Your task to perform on an android device: Clear all items from cart on bestbuy. Search for "razer naga" on bestbuy, select the first entry, add it to the cart, then select checkout. Image 0: 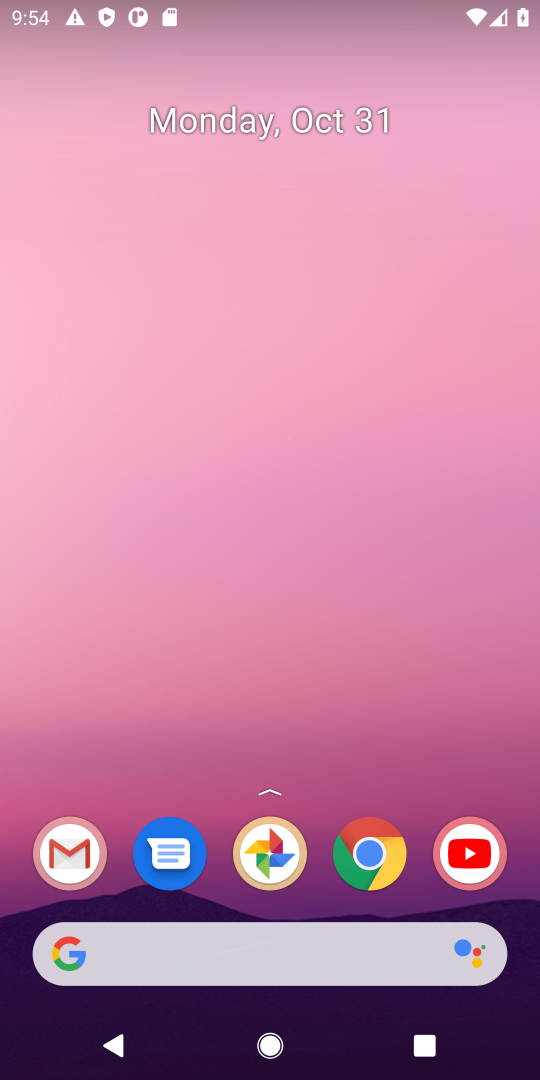
Step 0: click (197, 939)
Your task to perform on an android device: Clear all items from cart on bestbuy. Search for "razer naga" on bestbuy, select the first entry, add it to the cart, then select checkout. Image 1: 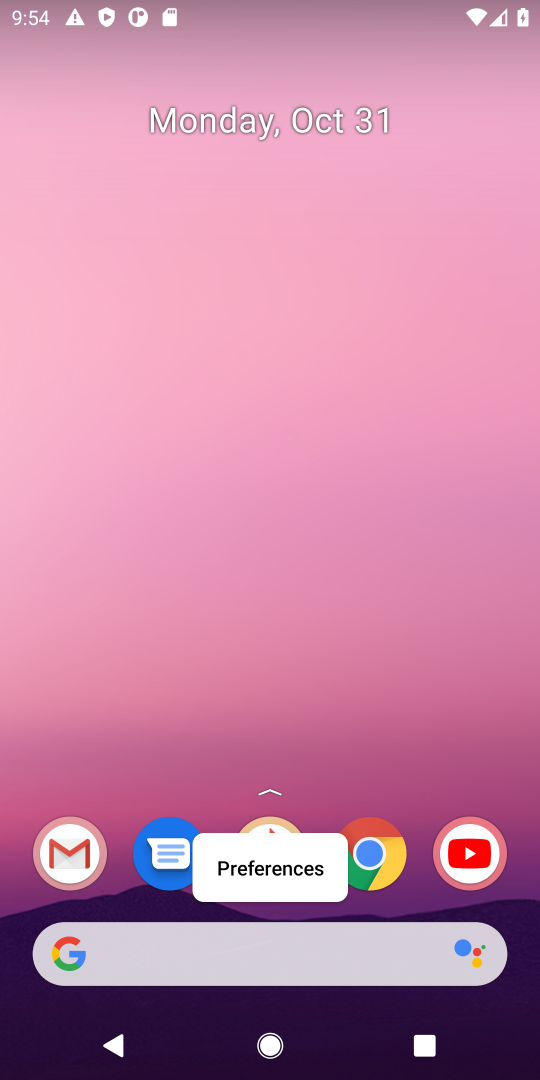
Step 1: click (190, 944)
Your task to perform on an android device: Clear all items from cart on bestbuy. Search for "razer naga" on bestbuy, select the first entry, add it to the cart, then select checkout. Image 2: 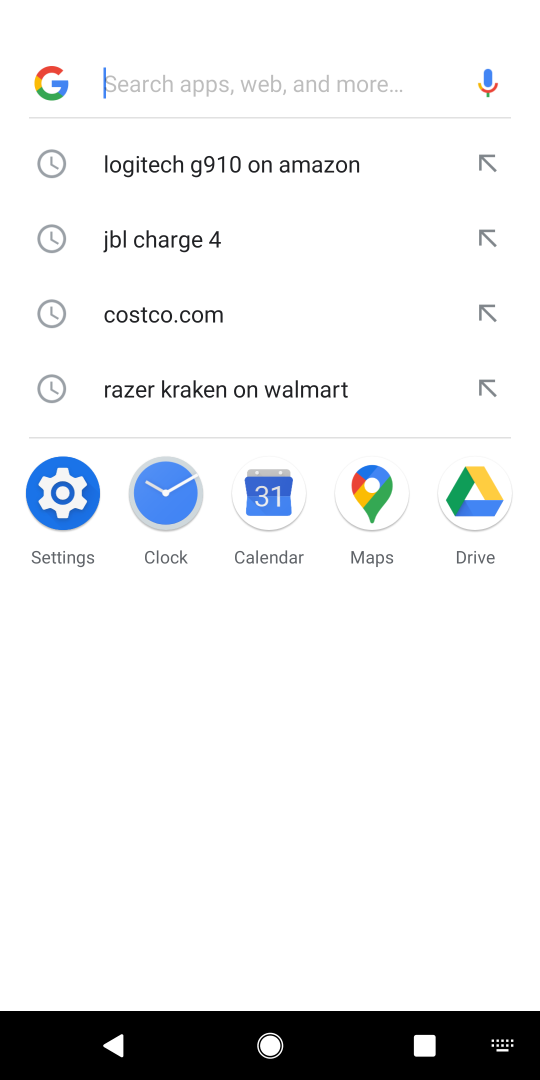
Step 2: type "bestbuy"
Your task to perform on an android device: Clear all items from cart on bestbuy. Search for "razer naga" on bestbuy, select the first entry, add it to the cart, then select checkout. Image 3: 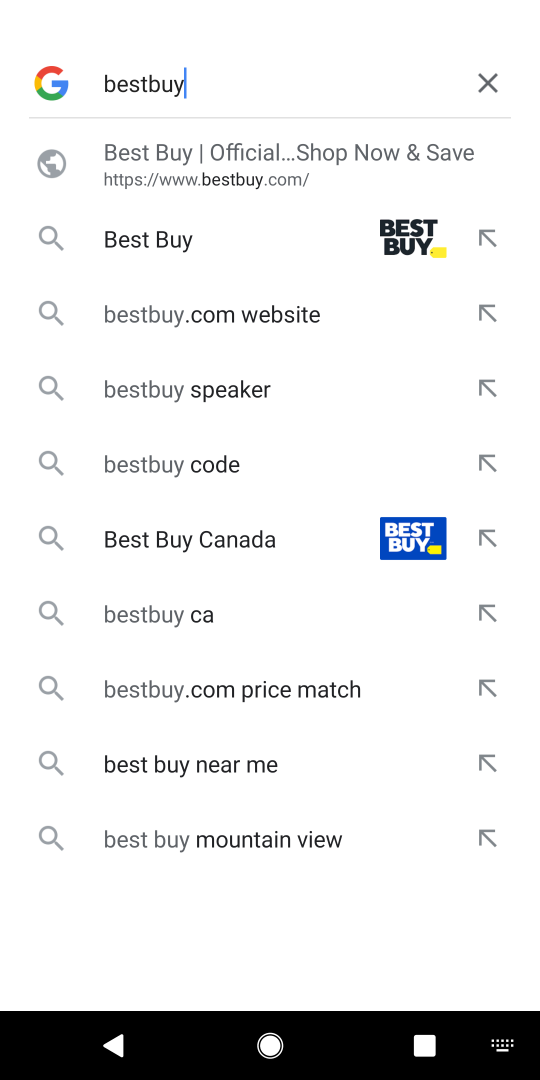
Step 3: type ""
Your task to perform on an android device: Clear all items from cart on bestbuy. Search for "razer naga" on bestbuy, select the first entry, add it to the cart, then select checkout. Image 4: 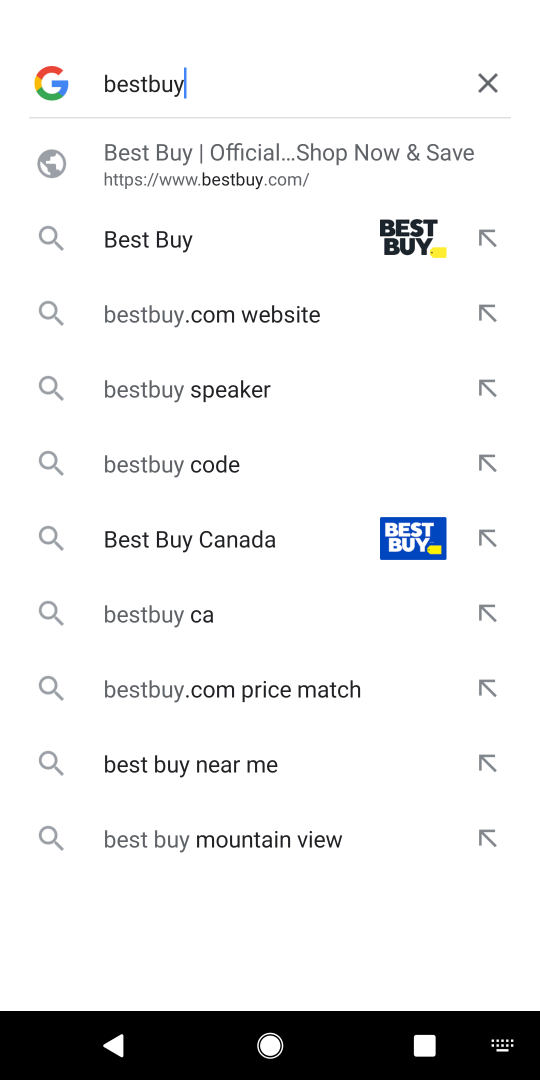
Step 4: press enter
Your task to perform on an android device: Clear all items from cart on bestbuy. Search for "razer naga" on bestbuy, select the first entry, add it to the cart, then select checkout. Image 5: 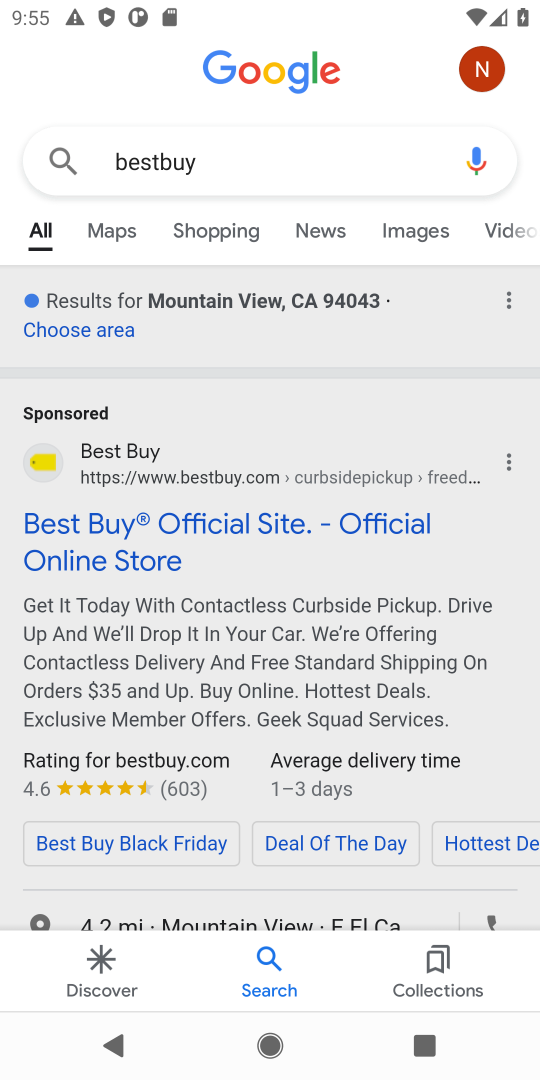
Step 5: click (210, 509)
Your task to perform on an android device: Clear all items from cart on bestbuy. Search for "razer naga" on bestbuy, select the first entry, add it to the cart, then select checkout. Image 6: 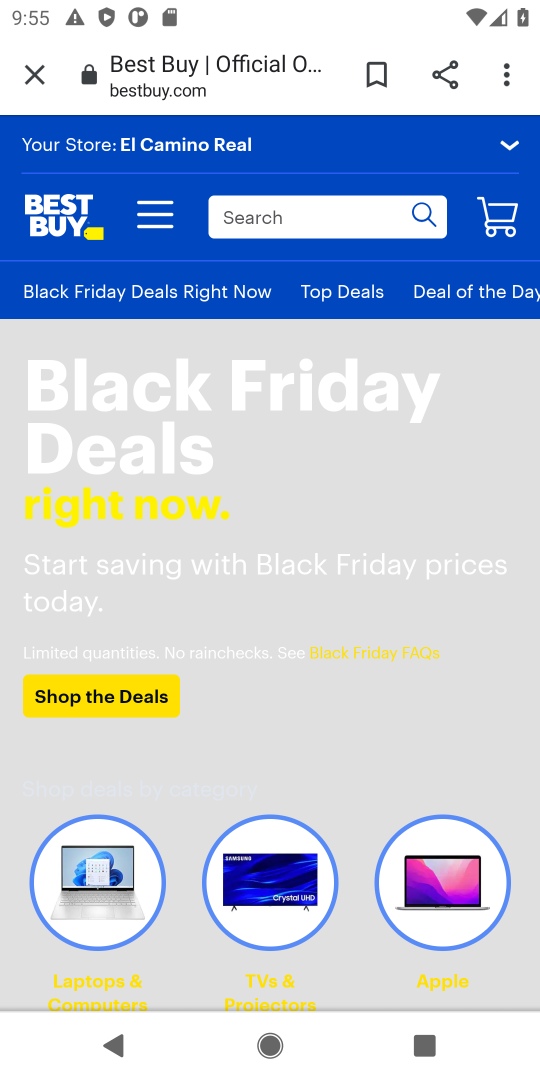
Step 6: click (290, 228)
Your task to perform on an android device: Clear all items from cart on bestbuy. Search for "razer naga" on bestbuy, select the first entry, add it to the cart, then select checkout. Image 7: 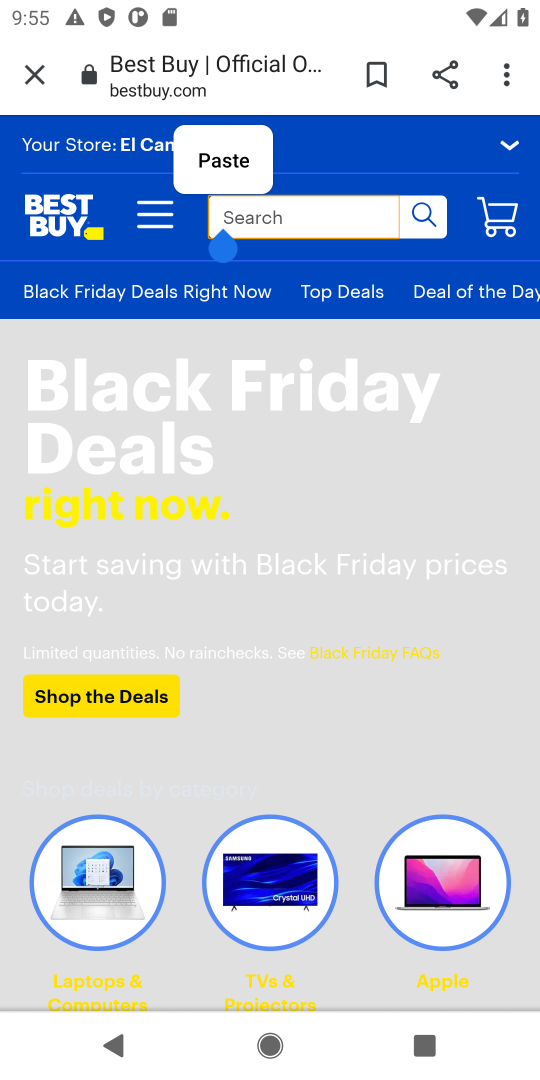
Step 7: type "razer naga"
Your task to perform on an android device: Clear all items from cart on bestbuy. Search for "razer naga" on bestbuy, select the first entry, add it to the cart, then select checkout. Image 8: 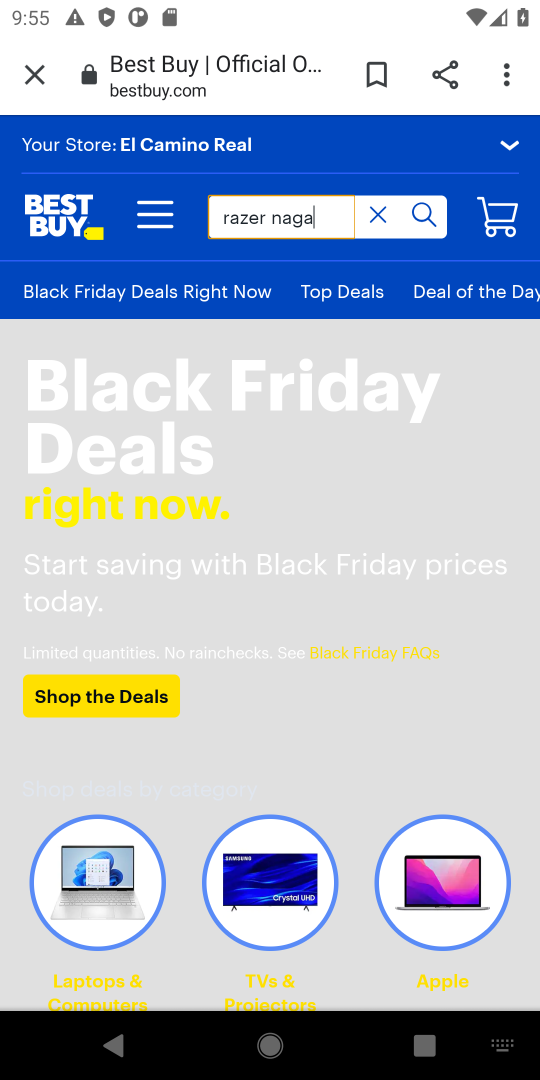
Step 8: type ""
Your task to perform on an android device: Clear all items from cart on bestbuy. Search for "razer naga" on bestbuy, select the first entry, add it to the cart, then select checkout. Image 9: 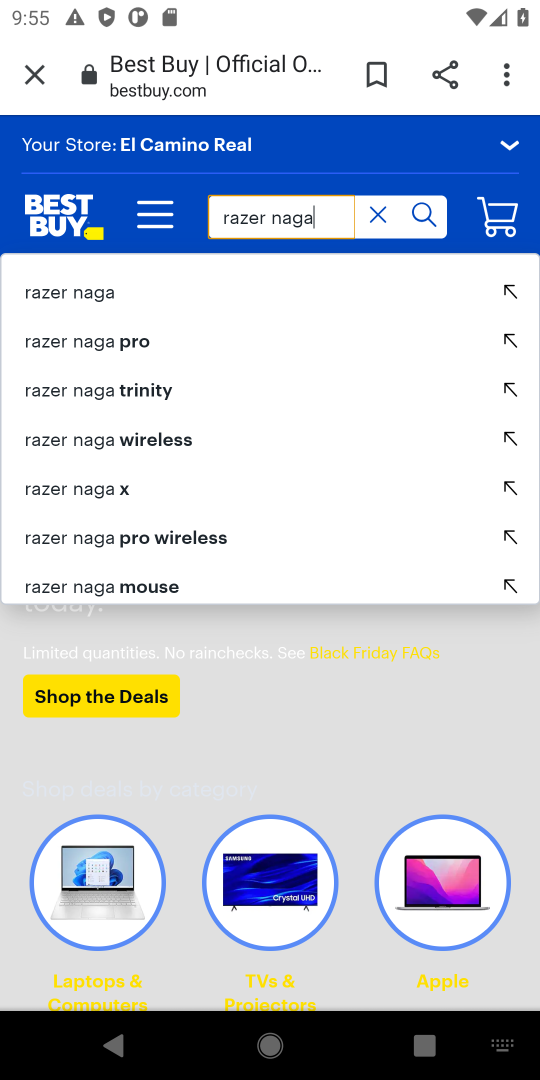
Step 9: press enter
Your task to perform on an android device: Clear all items from cart on bestbuy. Search for "razer naga" on bestbuy, select the first entry, add it to the cart, then select checkout. Image 10: 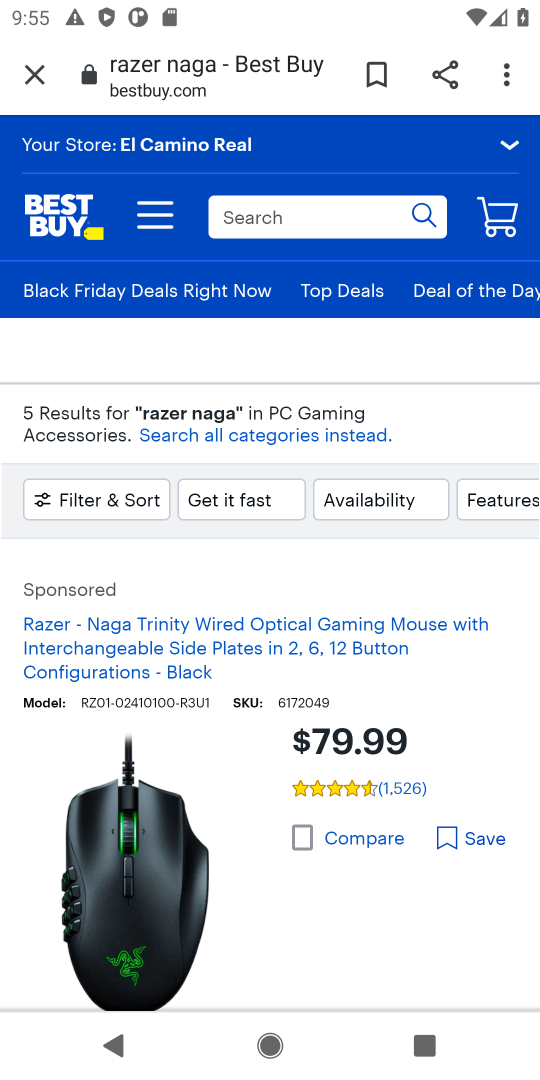
Step 10: click (367, 762)
Your task to perform on an android device: Clear all items from cart on bestbuy. Search for "razer naga" on bestbuy, select the first entry, add it to the cart, then select checkout. Image 11: 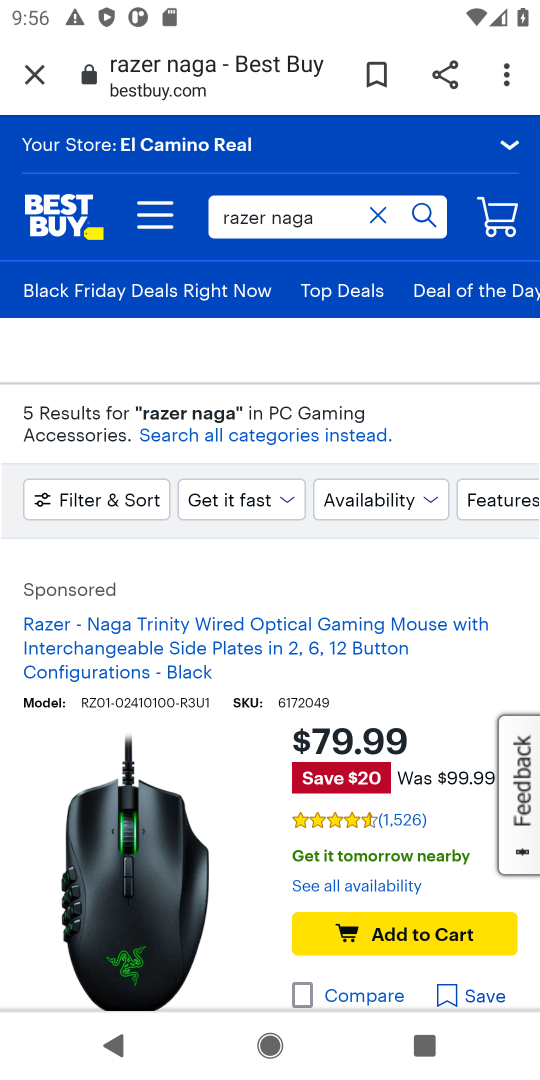
Step 11: click (428, 929)
Your task to perform on an android device: Clear all items from cart on bestbuy. Search for "razer naga" on bestbuy, select the first entry, add it to the cart, then select checkout. Image 12: 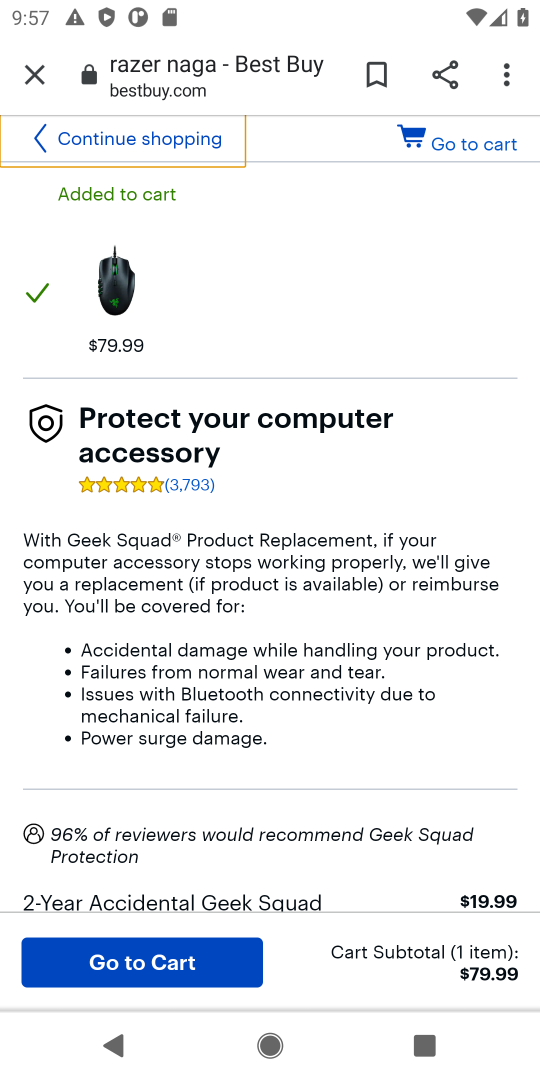
Step 12: click (233, 1000)
Your task to perform on an android device: Clear all items from cart on bestbuy. Search for "razer naga" on bestbuy, select the first entry, add it to the cart, then select checkout. Image 13: 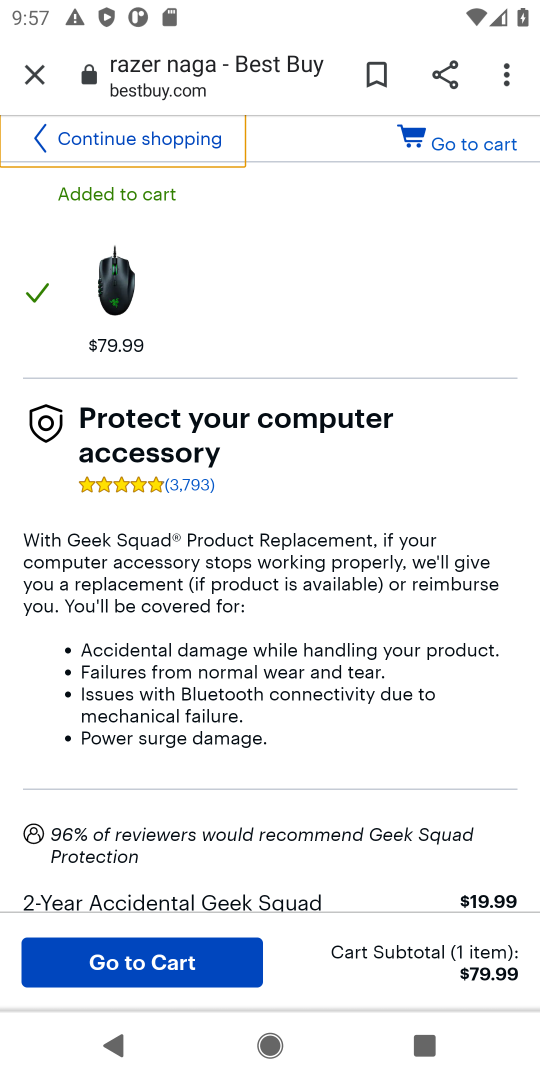
Step 13: click (220, 964)
Your task to perform on an android device: Clear all items from cart on bestbuy. Search for "razer naga" on bestbuy, select the first entry, add it to the cart, then select checkout. Image 14: 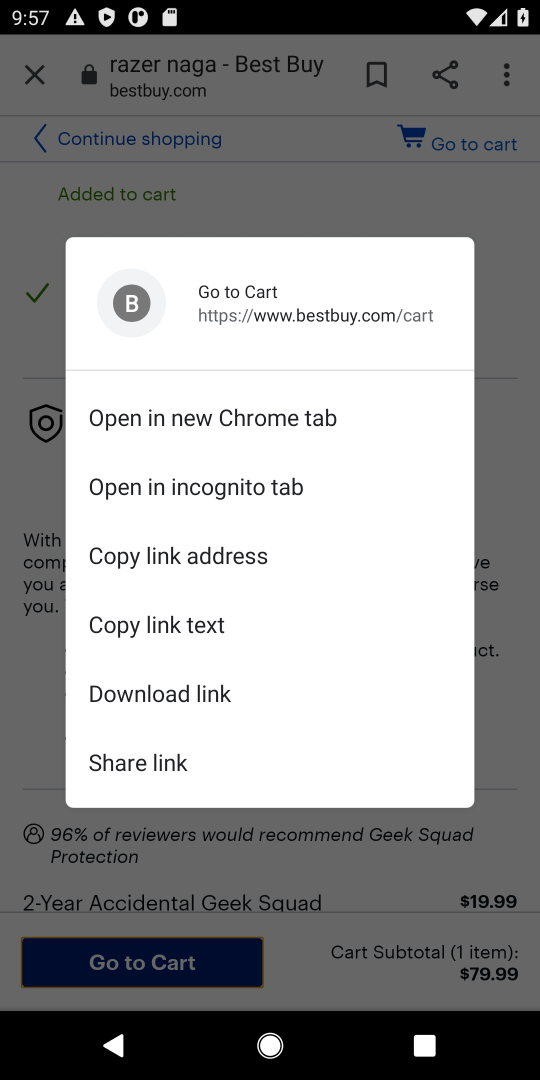
Step 14: click (216, 955)
Your task to perform on an android device: Clear all items from cart on bestbuy. Search for "razer naga" on bestbuy, select the first entry, add it to the cart, then select checkout. Image 15: 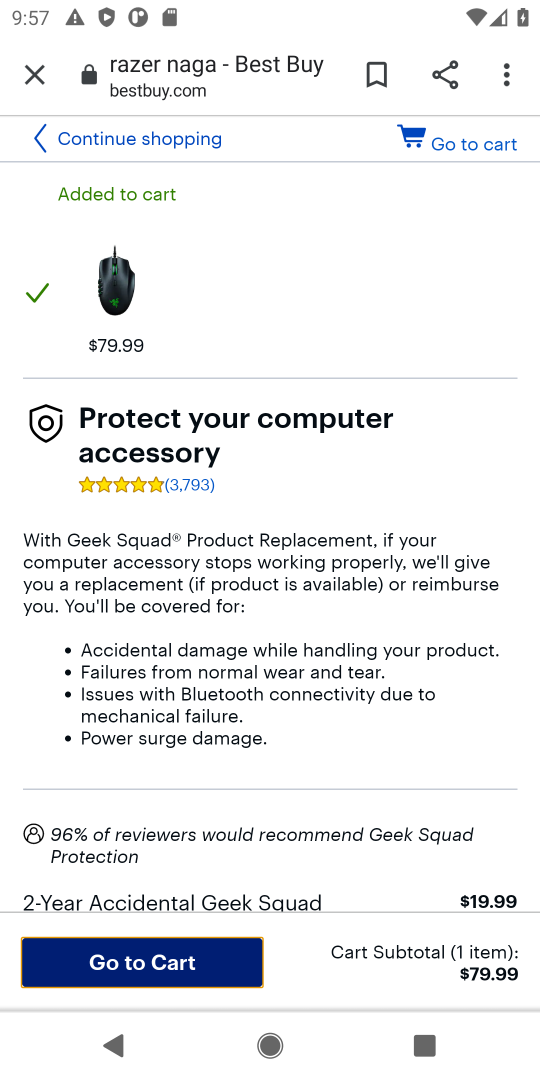
Step 15: click (175, 970)
Your task to perform on an android device: Clear all items from cart on bestbuy. Search for "razer naga" on bestbuy, select the first entry, add it to the cart, then select checkout. Image 16: 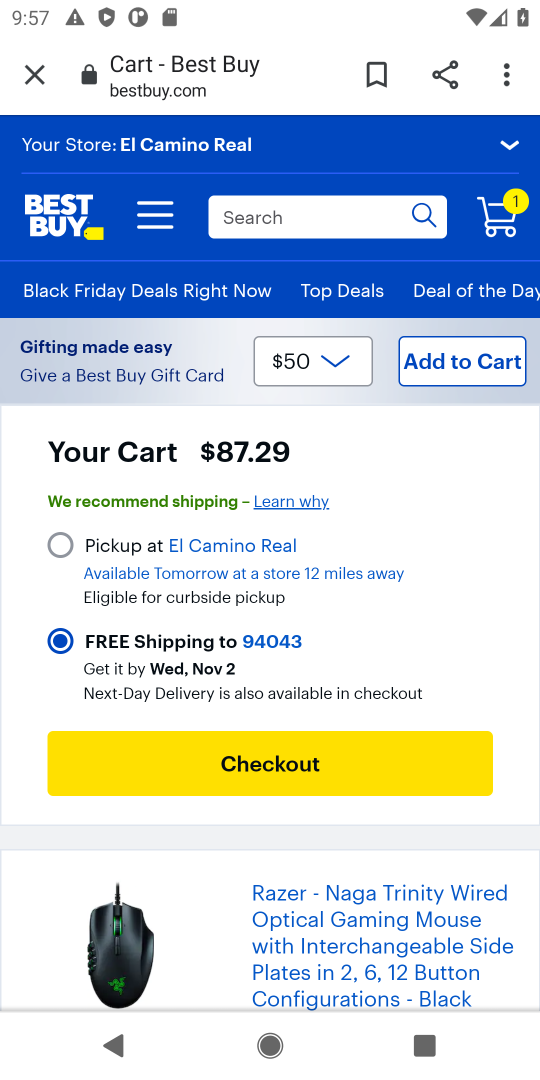
Step 16: task complete